Your task to perform on an android device: toggle wifi Image 0: 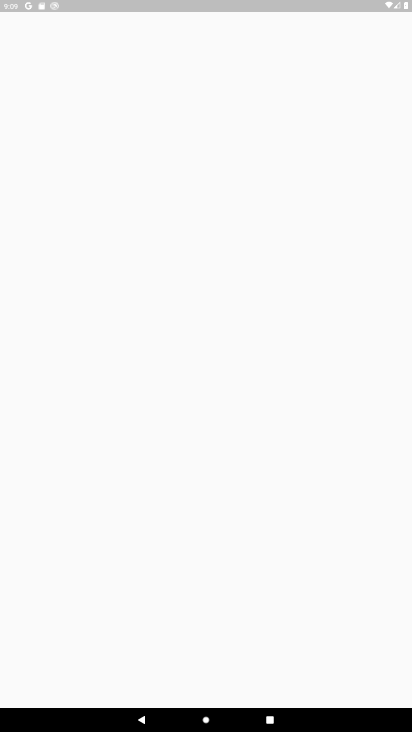
Step 0: press home button
Your task to perform on an android device: toggle wifi Image 1: 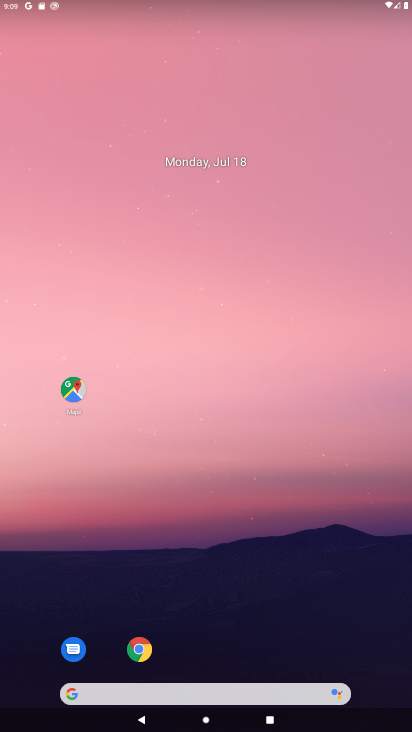
Step 1: drag from (191, 678) to (271, 167)
Your task to perform on an android device: toggle wifi Image 2: 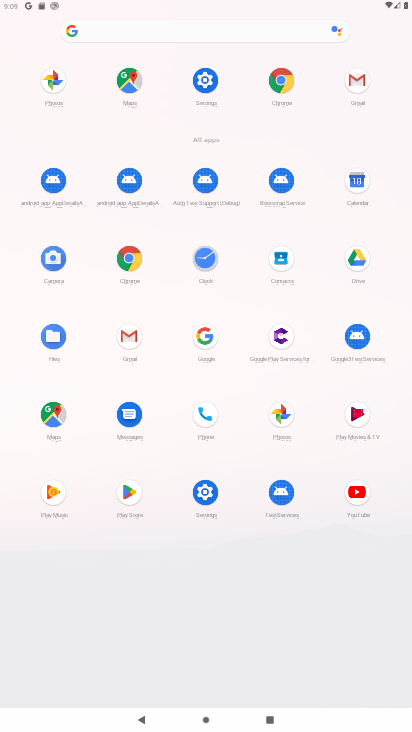
Step 2: click (219, 74)
Your task to perform on an android device: toggle wifi Image 3: 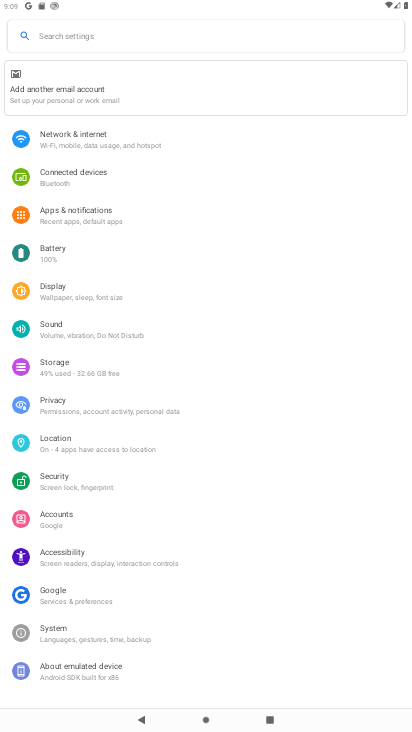
Step 3: click (97, 145)
Your task to perform on an android device: toggle wifi Image 4: 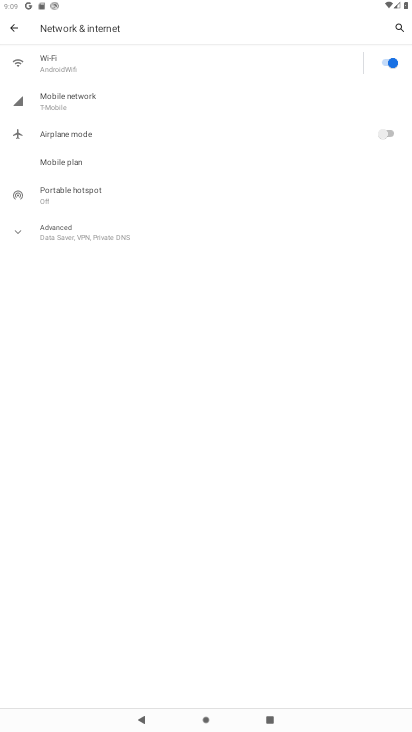
Step 4: click (394, 57)
Your task to perform on an android device: toggle wifi Image 5: 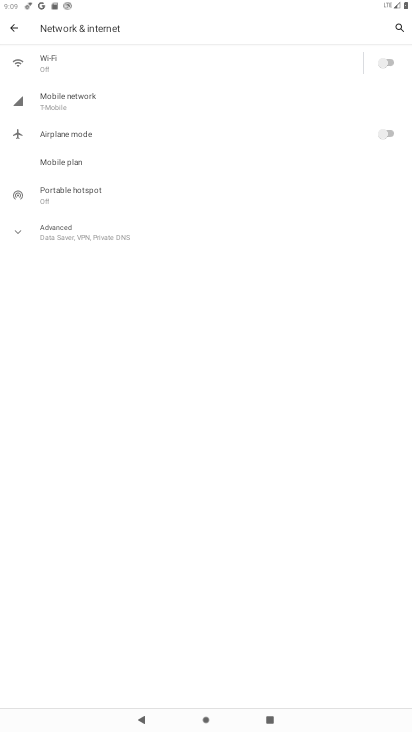
Step 5: task complete